Your task to perform on an android device: Show me the alarms in the clock app Image 0: 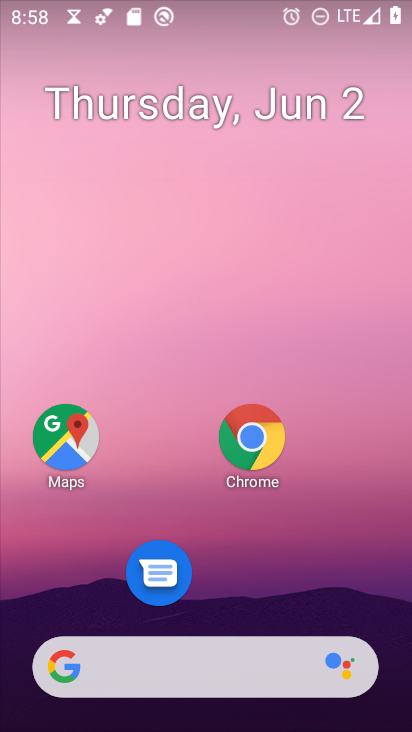
Step 0: drag from (163, 675) to (204, 223)
Your task to perform on an android device: Show me the alarms in the clock app Image 1: 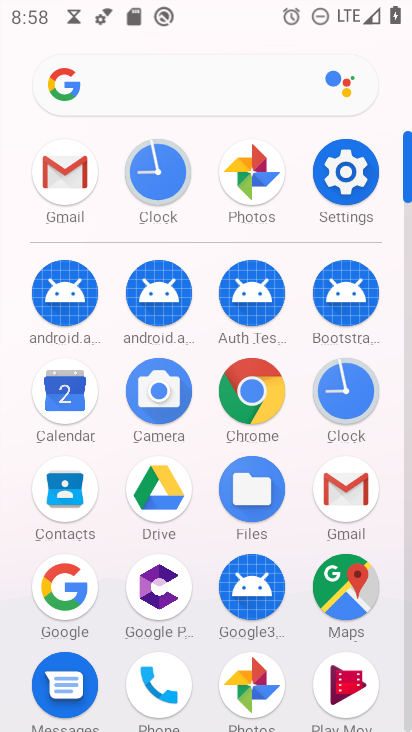
Step 1: click (160, 176)
Your task to perform on an android device: Show me the alarms in the clock app Image 2: 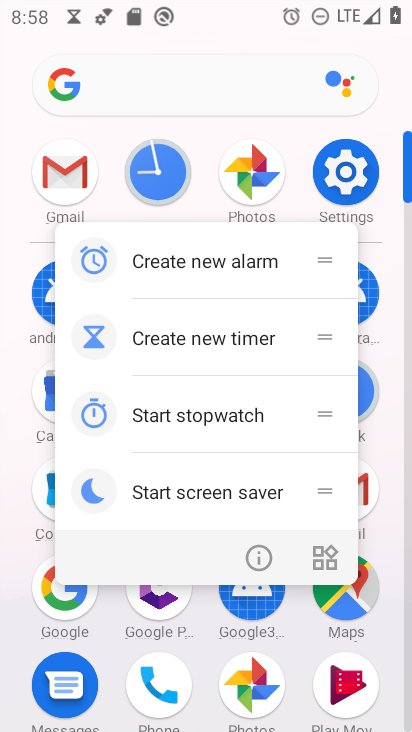
Step 2: click (157, 187)
Your task to perform on an android device: Show me the alarms in the clock app Image 3: 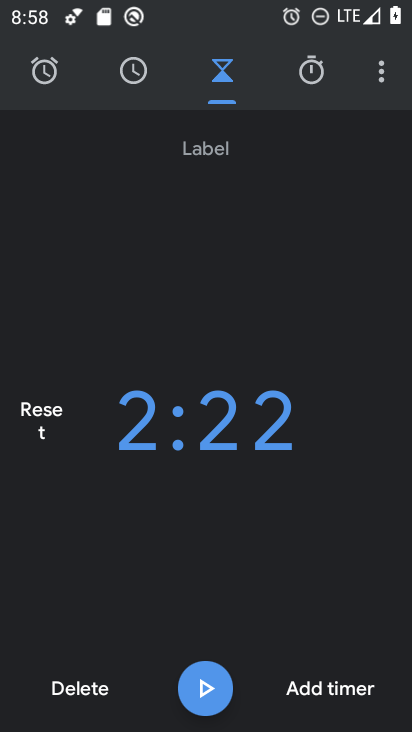
Step 3: click (47, 73)
Your task to perform on an android device: Show me the alarms in the clock app Image 4: 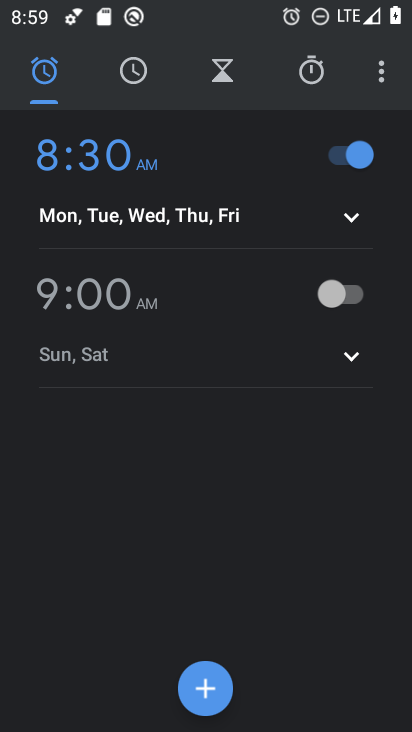
Step 4: task complete